Your task to perform on an android device: delete browsing data in the chrome app Image 0: 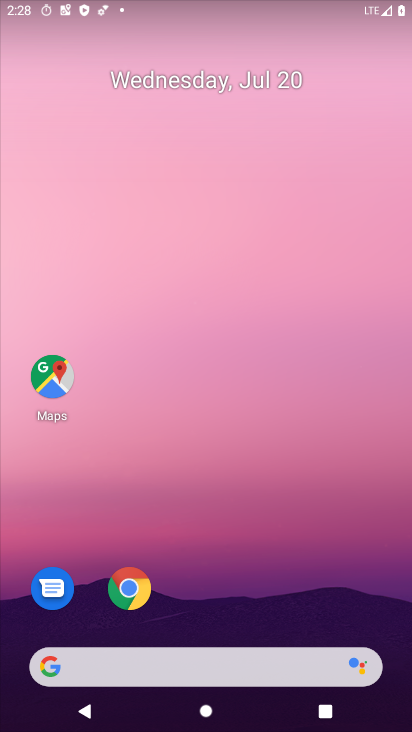
Step 0: drag from (262, 583) to (164, 12)
Your task to perform on an android device: delete browsing data in the chrome app Image 1: 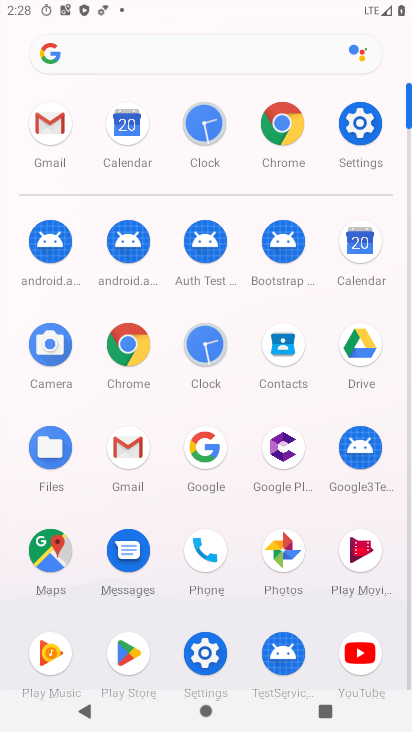
Step 1: click (281, 112)
Your task to perform on an android device: delete browsing data in the chrome app Image 2: 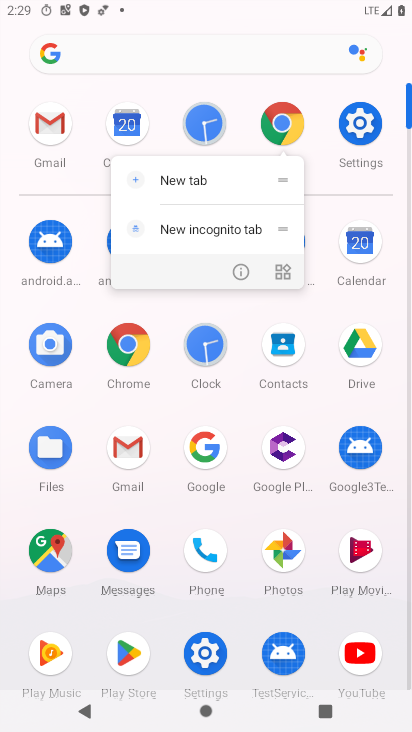
Step 2: click (281, 111)
Your task to perform on an android device: delete browsing data in the chrome app Image 3: 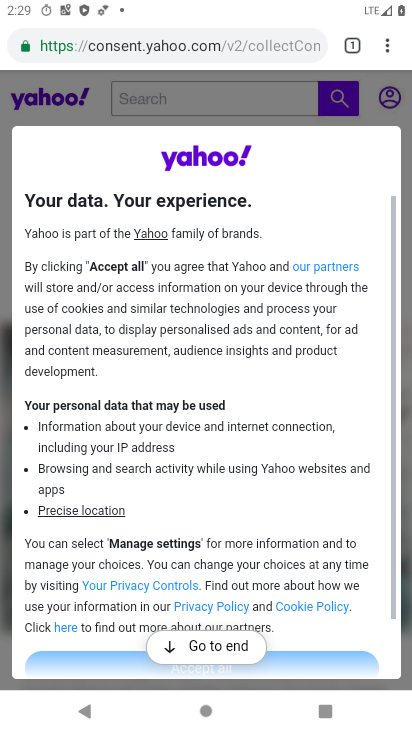
Step 3: drag from (386, 46) to (215, 263)
Your task to perform on an android device: delete browsing data in the chrome app Image 4: 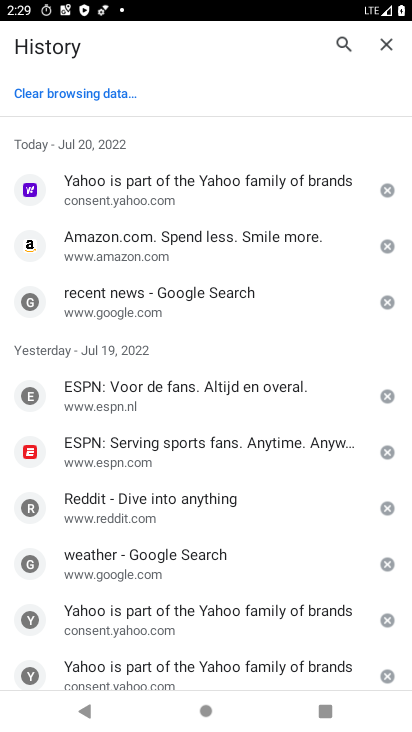
Step 4: click (40, 89)
Your task to perform on an android device: delete browsing data in the chrome app Image 5: 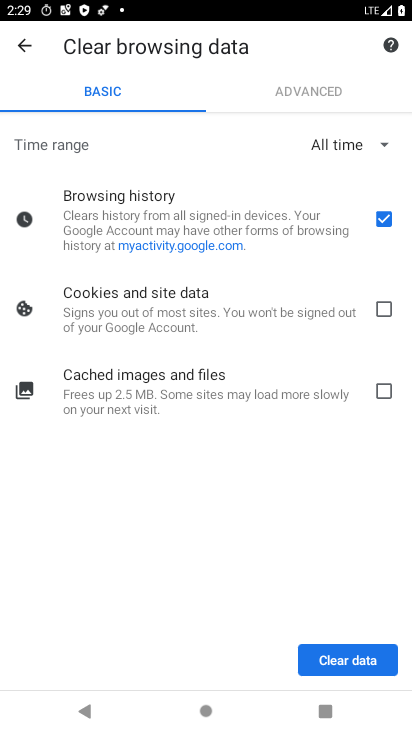
Step 5: click (350, 655)
Your task to perform on an android device: delete browsing data in the chrome app Image 6: 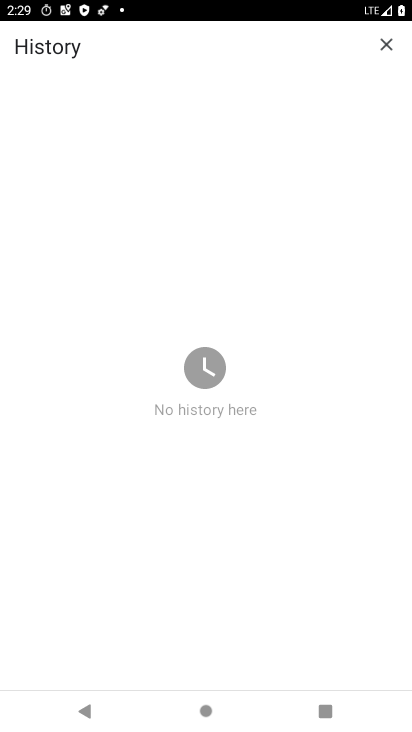
Step 6: task complete